Your task to perform on an android device: Is it going to rain today? Image 0: 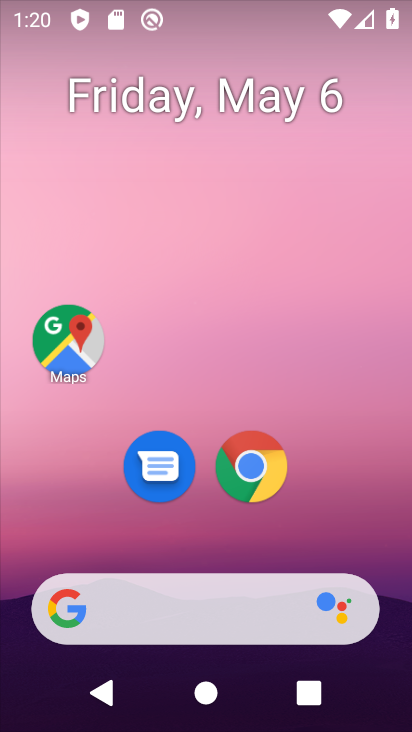
Step 0: press home button
Your task to perform on an android device: Is it going to rain today? Image 1: 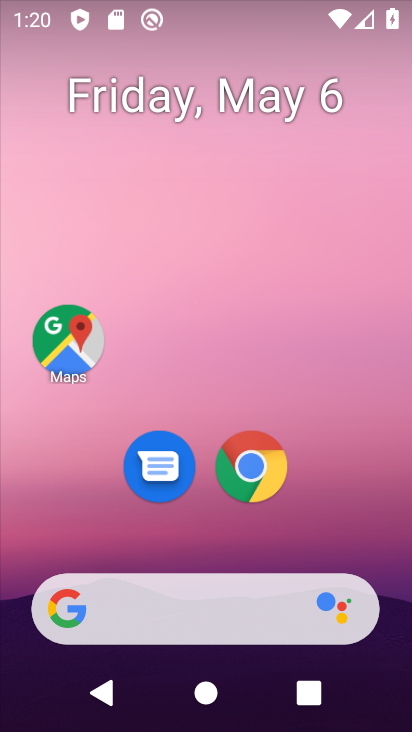
Step 1: drag from (41, 235) to (404, 297)
Your task to perform on an android device: Is it going to rain today? Image 2: 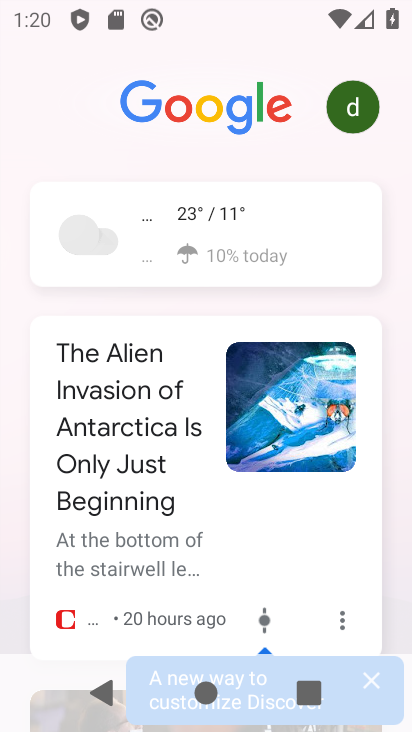
Step 2: click (250, 227)
Your task to perform on an android device: Is it going to rain today? Image 3: 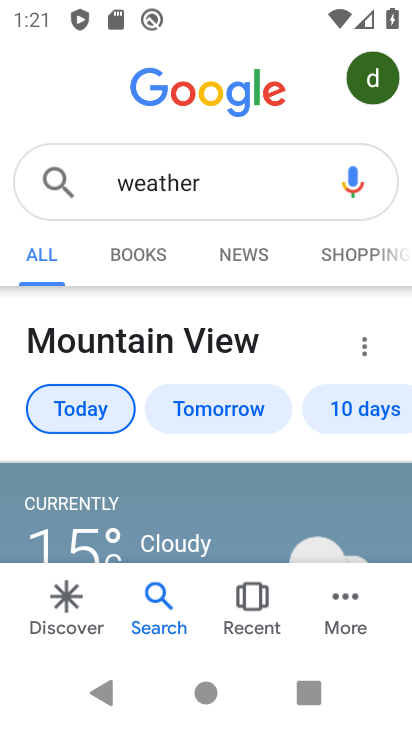
Step 3: task complete